Your task to perform on an android device: Open wifi settings Image 0: 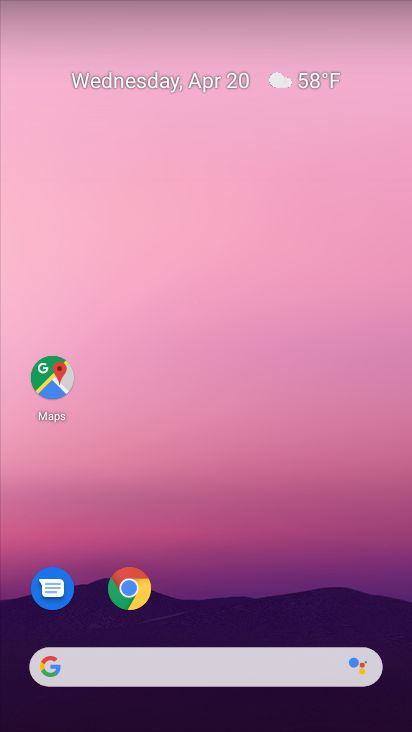
Step 0: drag from (265, 725) to (266, 78)
Your task to perform on an android device: Open wifi settings Image 1: 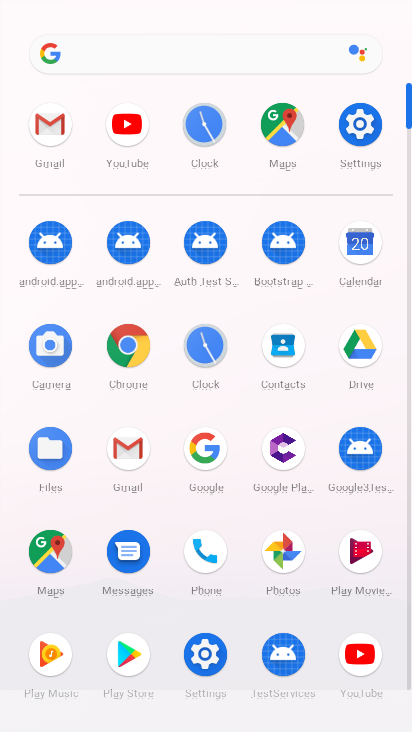
Step 1: click (358, 125)
Your task to perform on an android device: Open wifi settings Image 2: 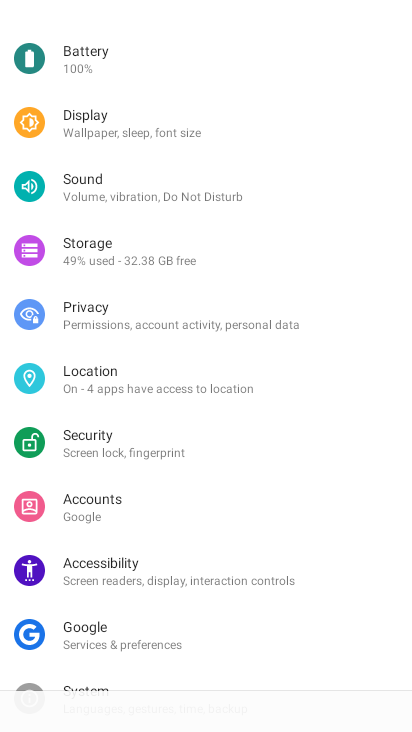
Step 2: drag from (246, 195) to (247, 610)
Your task to perform on an android device: Open wifi settings Image 3: 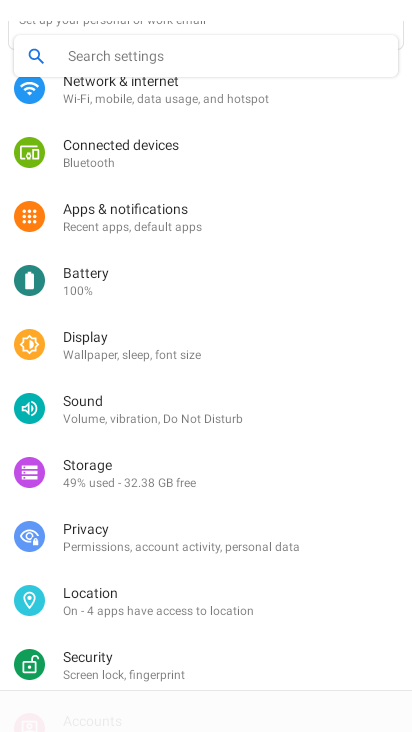
Step 3: drag from (183, 130) to (188, 587)
Your task to perform on an android device: Open wifi settings Image 4: 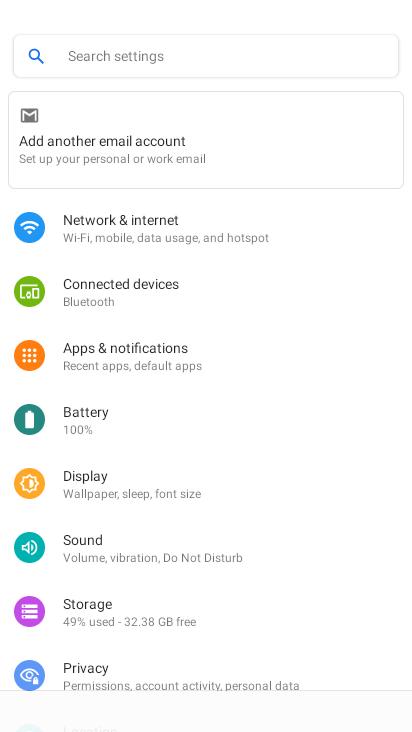
Step 4: click (129, 225)
Your task to perform on an android device: Open wifi settings Image 5: 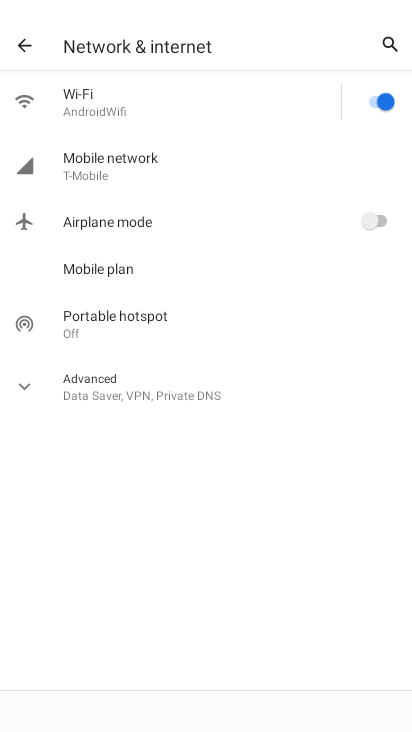
Step 5: click (95, 106)
Your task to perform on an android device: Open wifi settings Image 6: 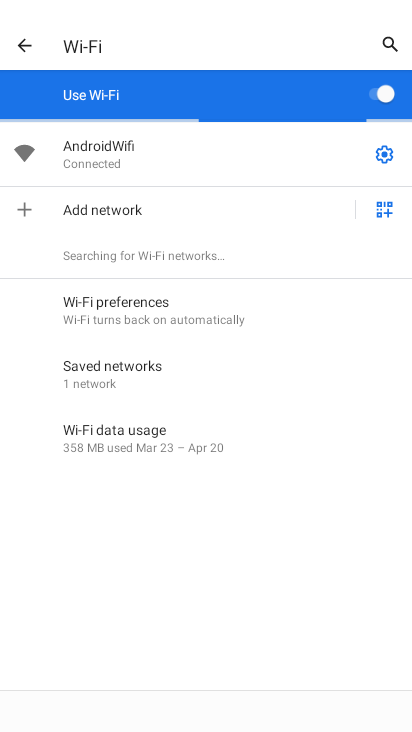
Step 6: click (385, 154)
Your task to perform on an android device: Open wifi settings Image 7: 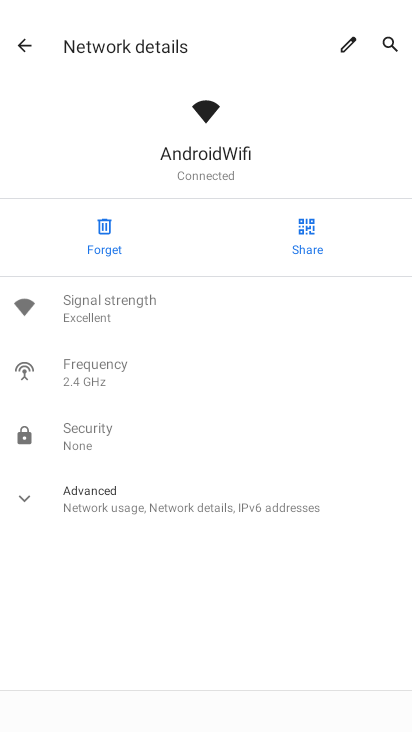
Step 7: task complete